Your task to perform on an android device: see sites visited before in the chrome app Image 0: 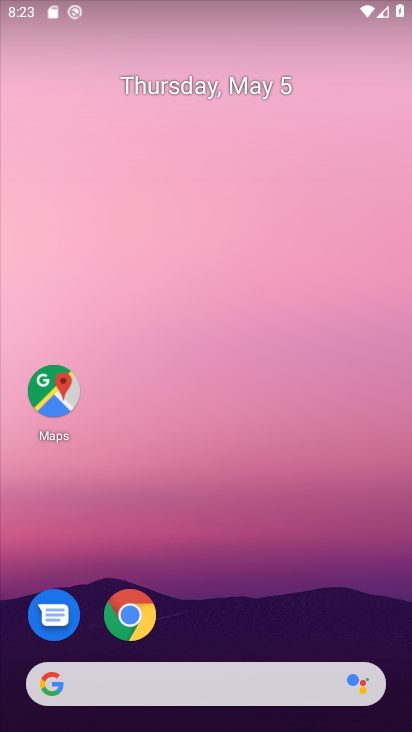
Step 0: click (128, 612)
Your task to perform on an android device: see sites visited before in the chrome app Image 1: 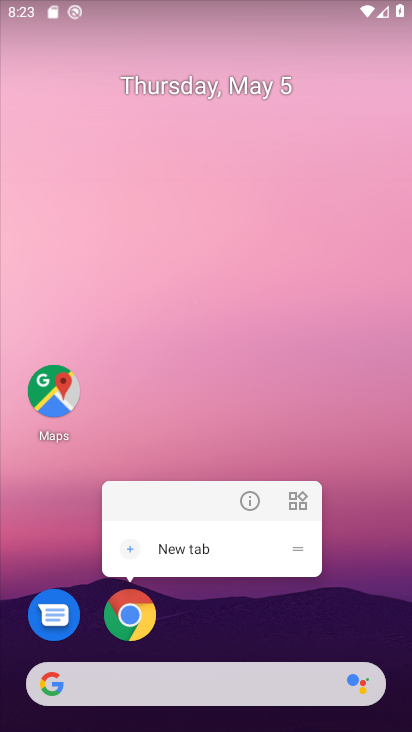
Step 1: click (130, 620)
Your task to perform on an android device: see sites visited before in the chrome app Image 2: 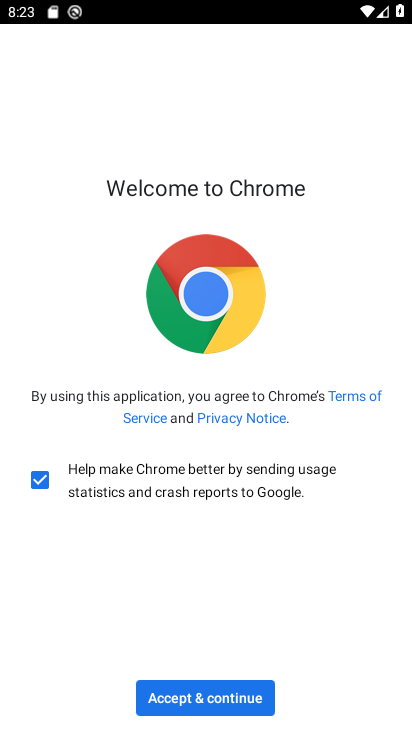
Step 2: click (155, 703)
Your task to perform on an android device: see sites visited before in the chrome app Image 3: 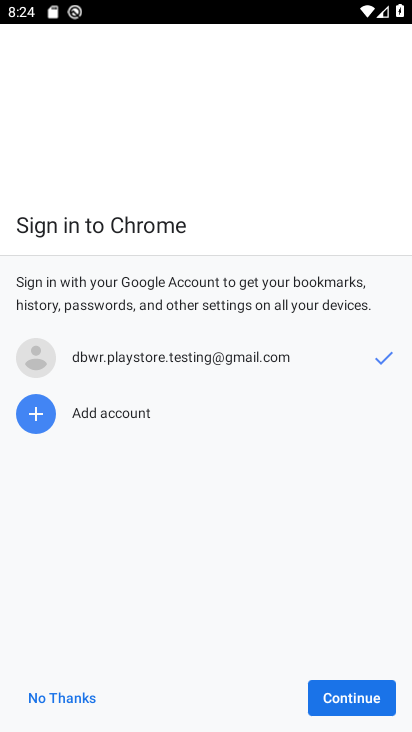
Step 3: click (342, 703)
Your task to perform on an android device: see sites visited before in the chrome app Image 4: 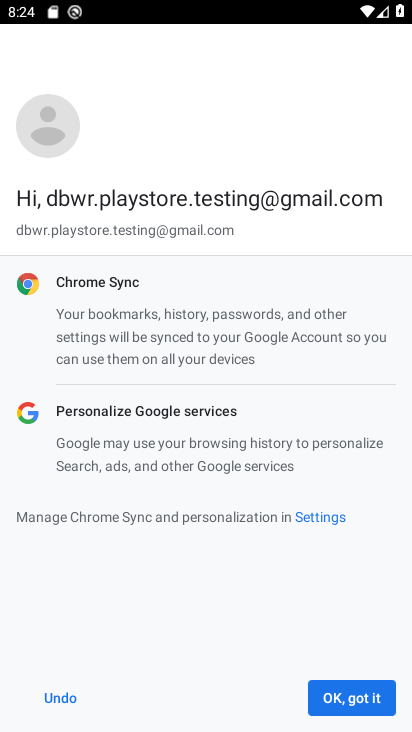
Step 4: click (342, 703)
Your task to perform on an android device: see sites visited before in the chrome app Image 5: 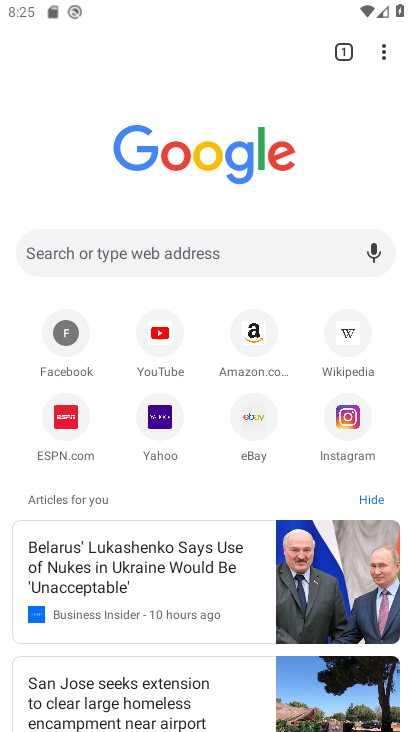
Step 5: click (343, 51)
Your task to perform on an android device: see sites visited before in the chrome app Image 6: 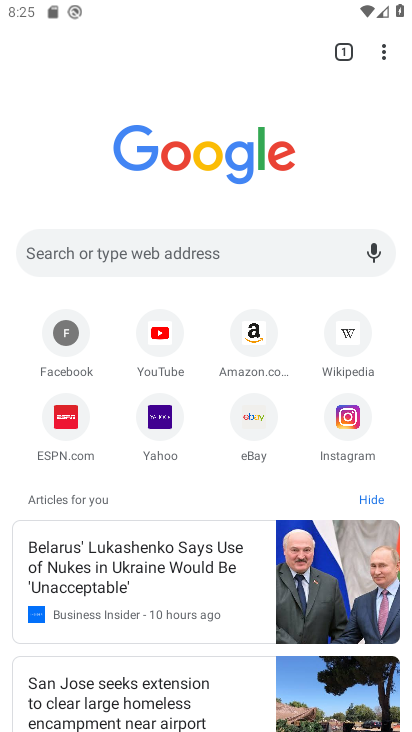
Step 6: task complete